Your task to perform on an android device: Go to CNN.com Image 0: 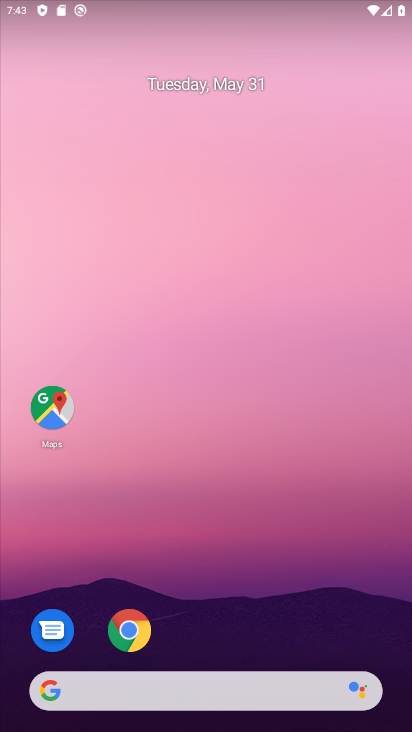
Step 0: click (233, 691)
Your task to perform on an android device: Go to CNN.com Image 1: 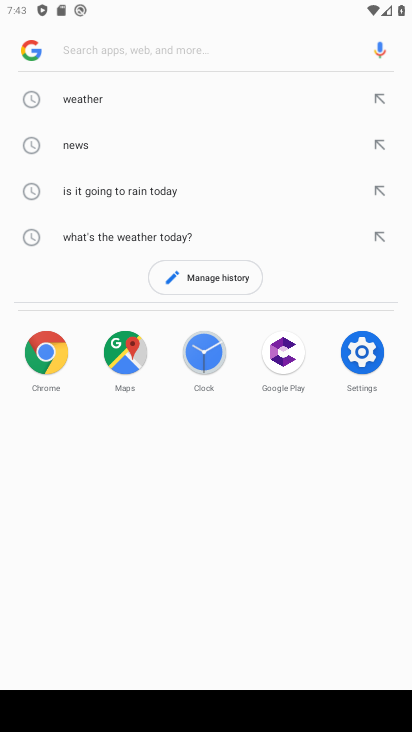
Step 1: type " CNN.com"
Your task to perform on an android device: Go to CNN.com Image 2: 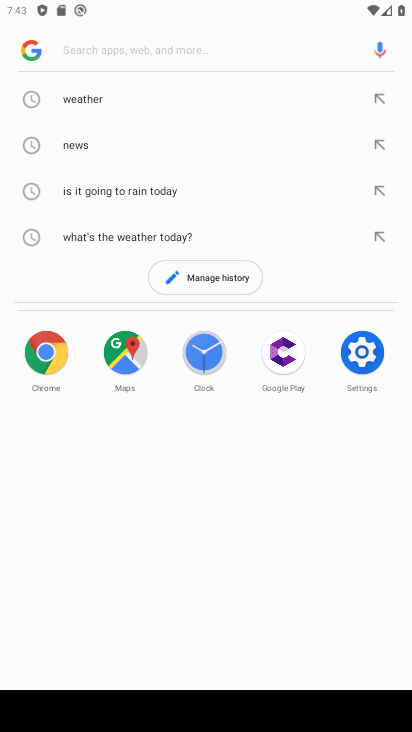
Step 2: click (112, 47)
Your task to perform on an android device: Go to CNN.com Image 3: 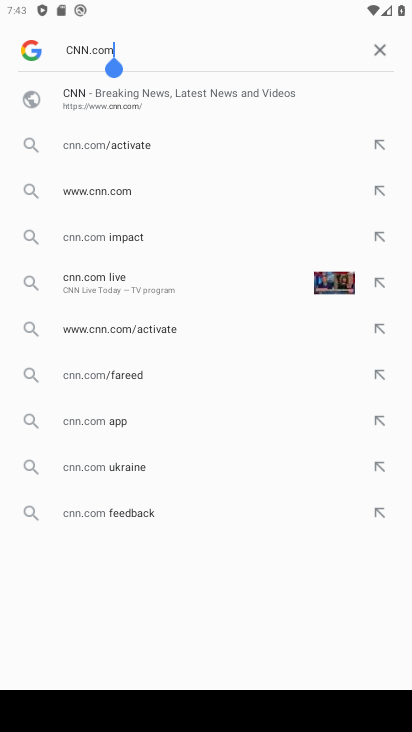
Step 3: click (194, 99)
Your task to perform on an android device: Go to CNN.com Image 4: 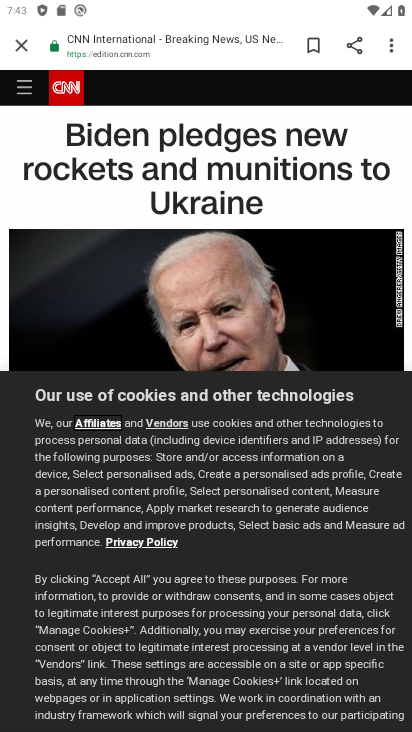
Step 4: task complete